Your task to perform on an android device: turn off javascript in the chrome app Image 0: 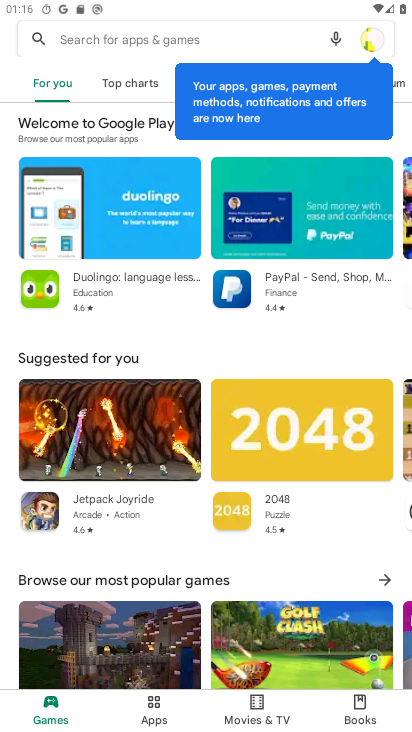
Step 0: press home button
Your task to perform on an android device: turn off javascript in the chrome app Image 1: 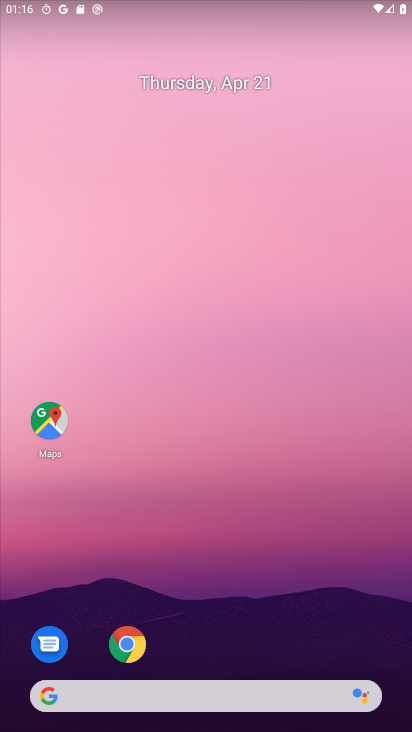
Step 1: click (122, 650)
Your task to perform on an android device: turn off javascript in the chrome app Image 2: 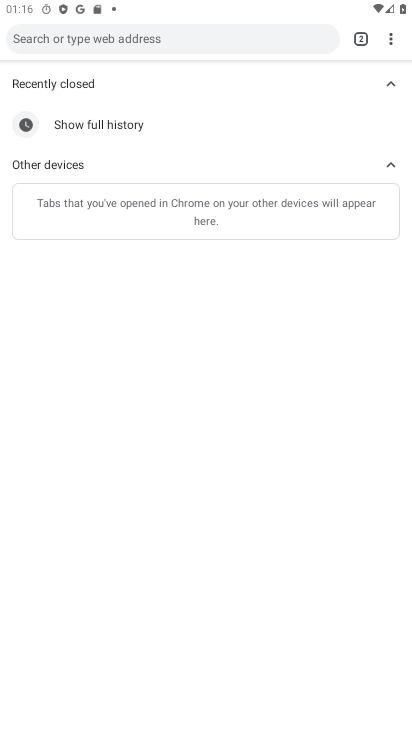
Step 2: drag from (395, 45) to (274, 363)
Your task to perform on an android device: turn off javascript in the chrome app Image 3: 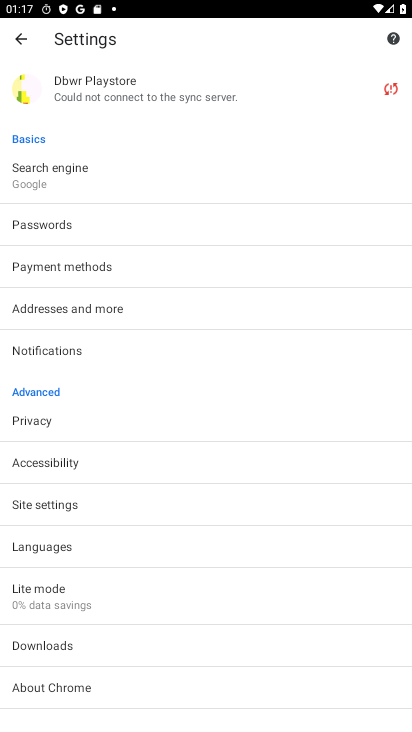
Step 3: click (161, 501)
Your task to perform on an android device: turn off javascript in the chrome app Image 4: 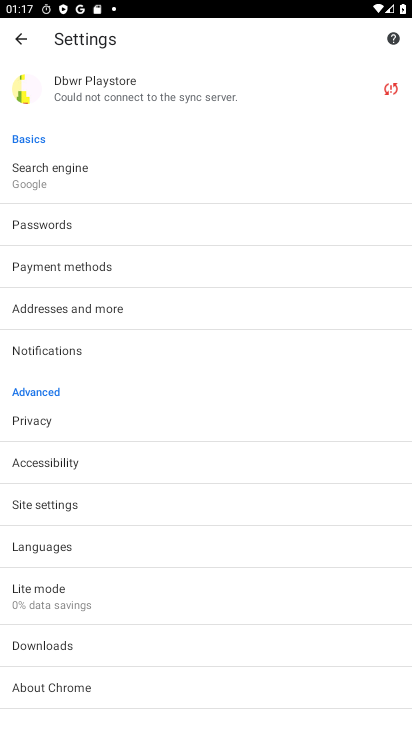
Step 4: click (73, 506)
Your task to perform on an android device: turn off javascript in the chrome app Image 5: 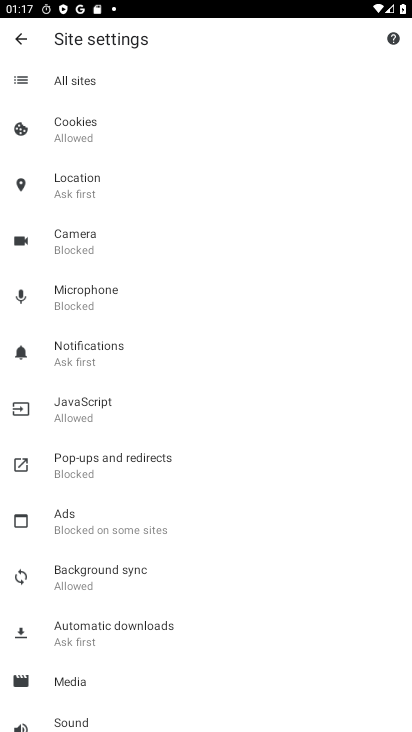
Step 5: click (131, 416)
Your task to perform on an android device: turn off javascript in the chrome app Image 6: 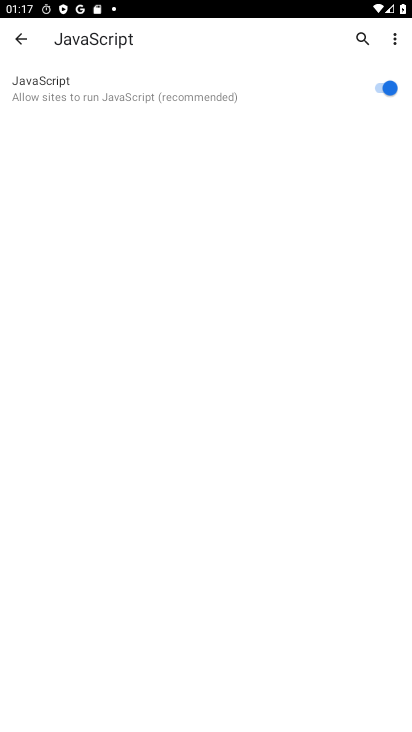
Step 6: click (376, 86)
Your task to perform on an android device: turn off javascript in the chrome app Image 7: 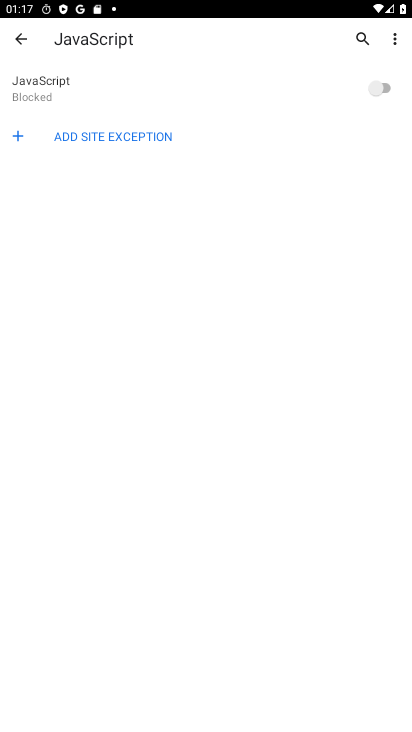
Step 7: task complete